Your task to perform on an android device: Open wifi settings Image 0: 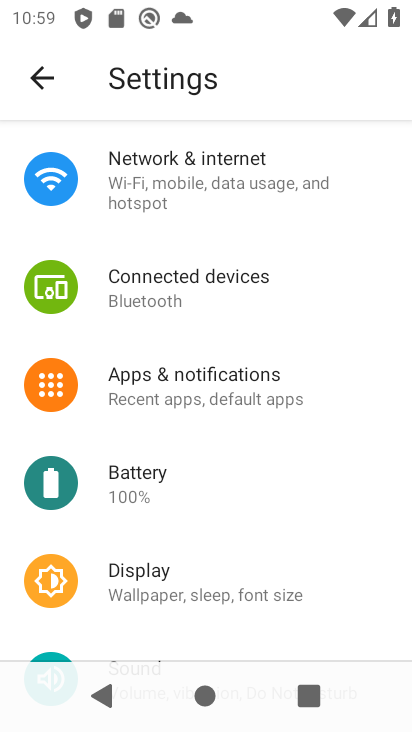
Step 0: click (217, 155)
Your task to perform on an android device: Open wifi settings Image 1: 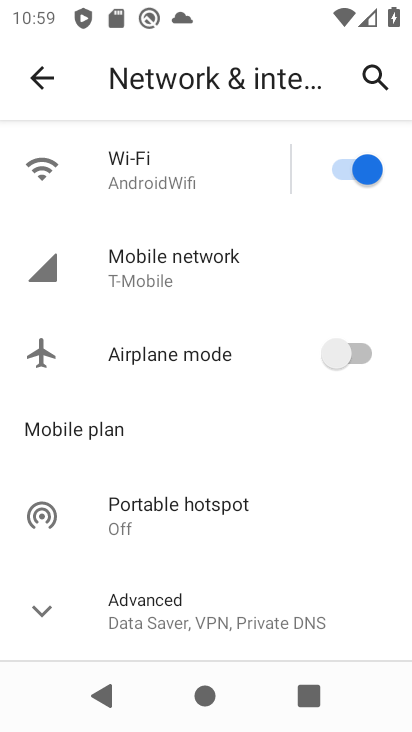
Step 1: click (132, 159)
Your task to perform on an android device: Open wifi settings Image 2: 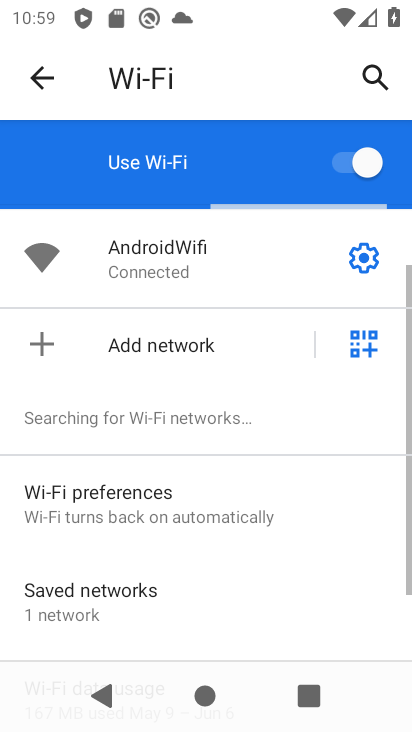
Step 2: click (360, 251)
Your task to perform on an android device: Open wifi settings Image 3: 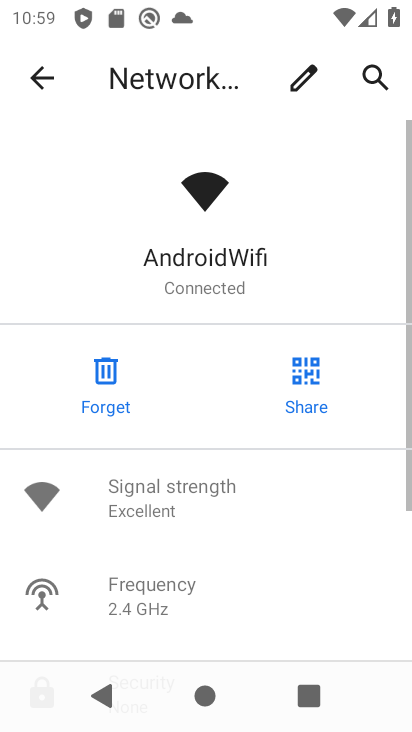
Step 3: task complete